Your task to perform on an android device: change the clock display to analog Image 0: 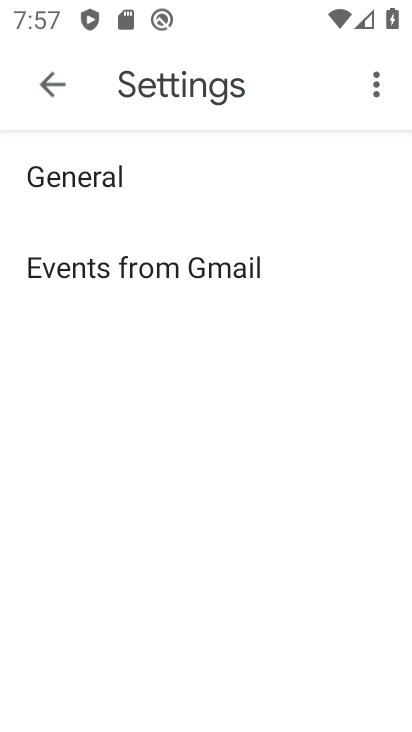
Step 0: press home button
Your task to perform on an android device: change the clock display to analog Image 1: 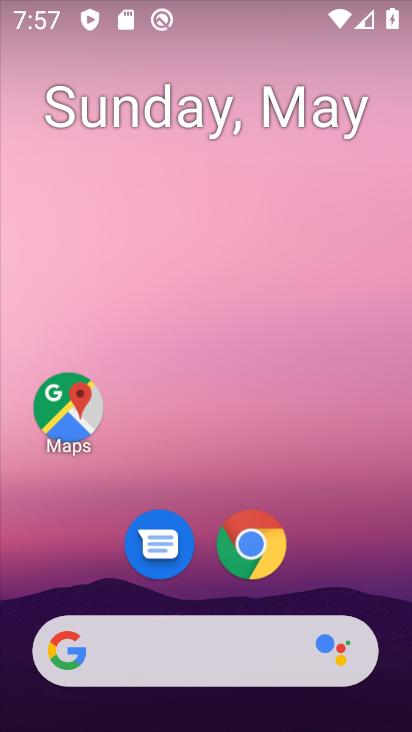
Step 1: drag from (331, 564) to (253, 16)
Your task to perform on an android device: change the clock display to analog Image 2: 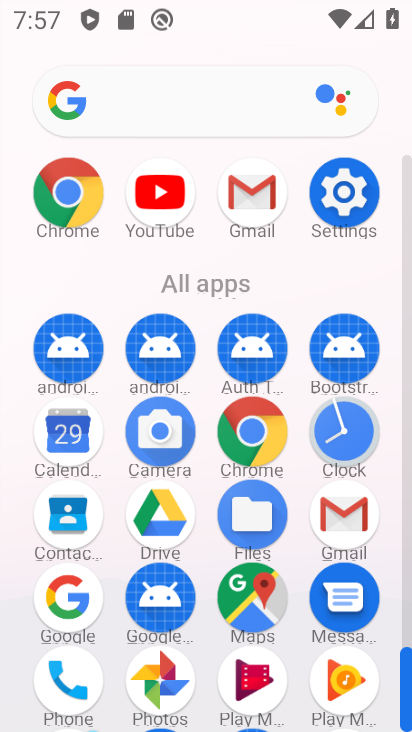
Step 2: drag from (5, 570) to (35, 172)
Your task to perform on an android device: change the clock display to analog Image 3: 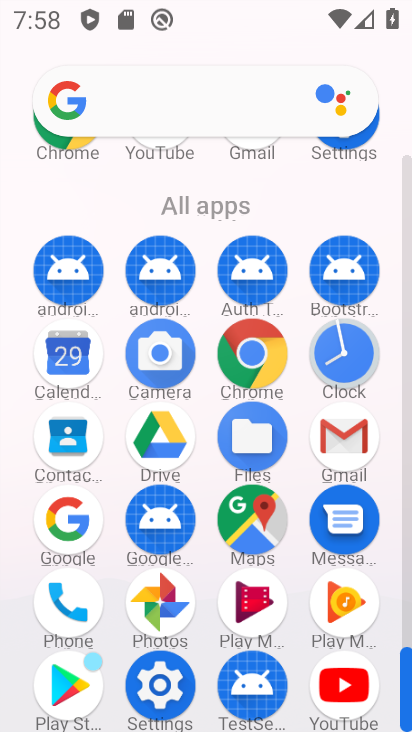
Step 3: click (347, 351)
Your task to perform on an android device: change the clock display to analog Image 4: 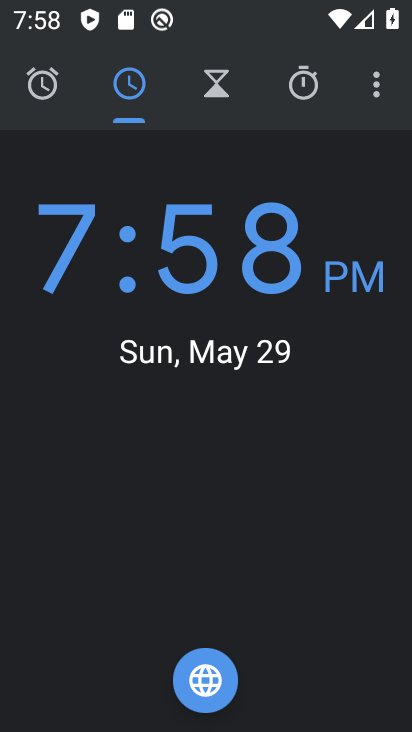
Step 4: drag from (372, 97) to (310, 170)
Your task to perform on an android device: change the clock display to analog Image 5: 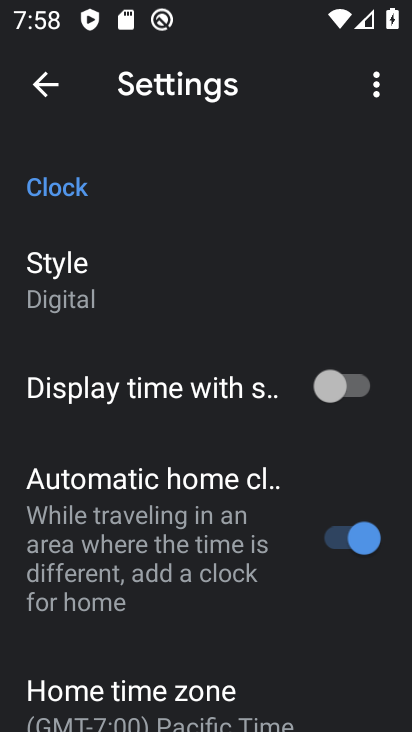
Step 5: click (80, 279)
Your task to perform on an android device: change the clock display to analog Image 6: 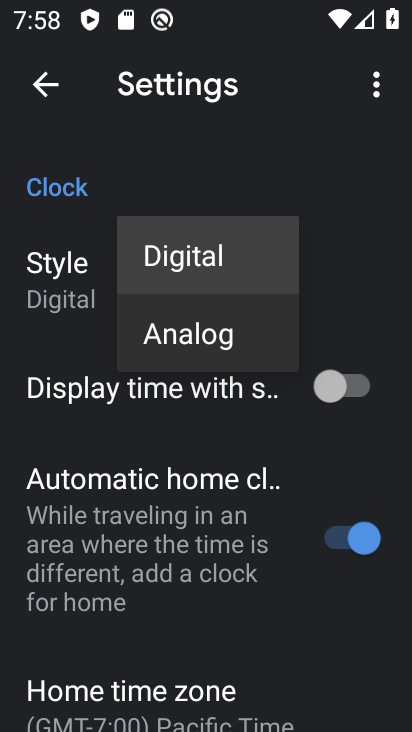
Step 6: click (170, 333)
Your task to perform on an android device: change the clock display to analog Image 7: 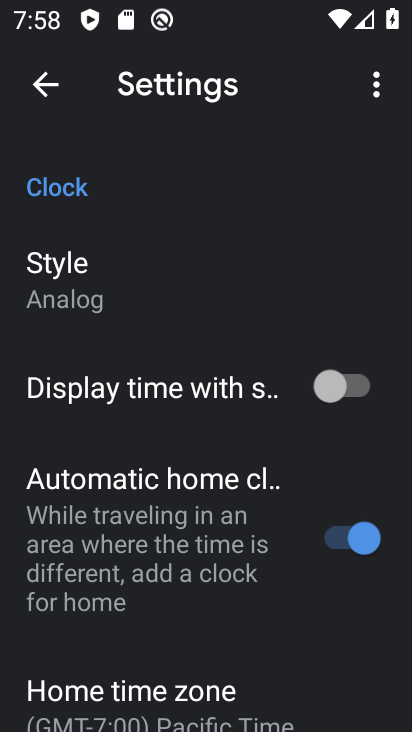
Step 7: task complete